Your task to perform on an android device: toggle notification dots Image 0: 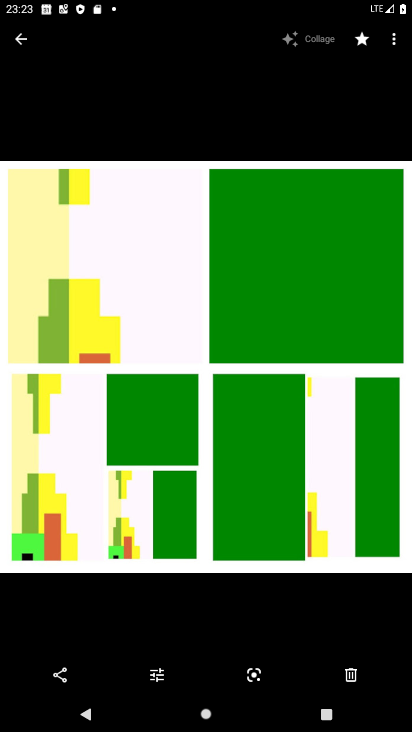
Step 0: drag from (251, 665) to (244, 583)
Your task to perform on an android device: toggle notification dots Image 1: 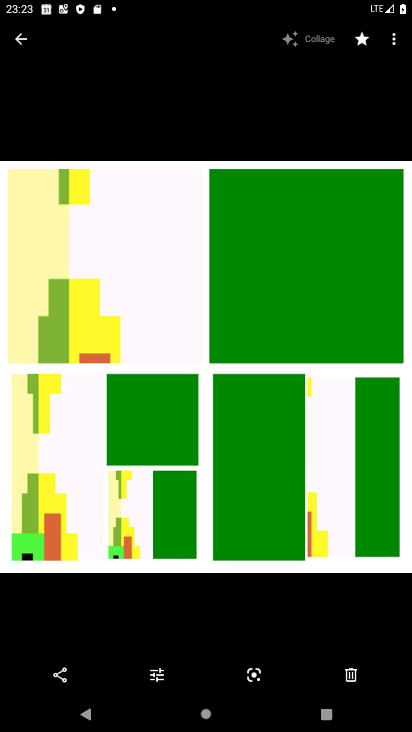
Step 1: press home button
Your task to perform on an android device: toggle notification dots Image 2: 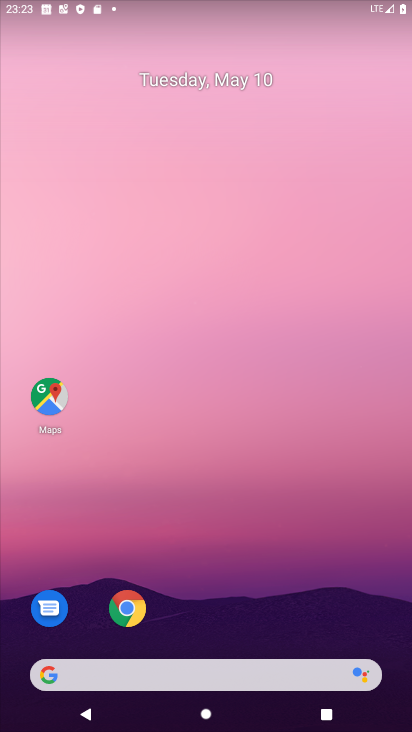
Step 2: drag from (256, 557) to (286, 294)
Your task to perform on an android device: toggle notification dots Image 3: 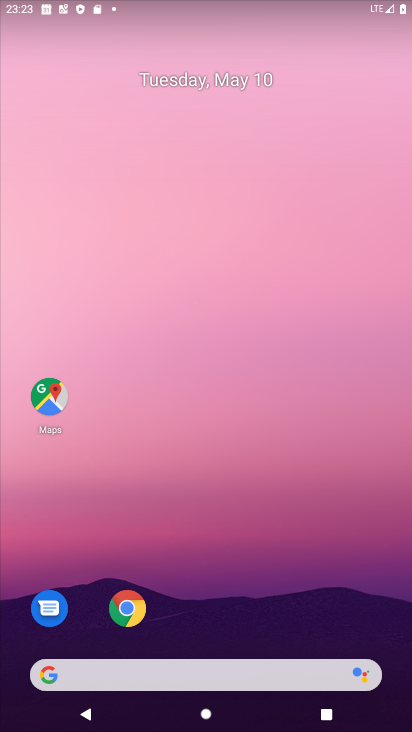
Step 3: drag from (191, 640) to (201, 239)
Your task to perform on an android device: toggle notification dots Image 4: 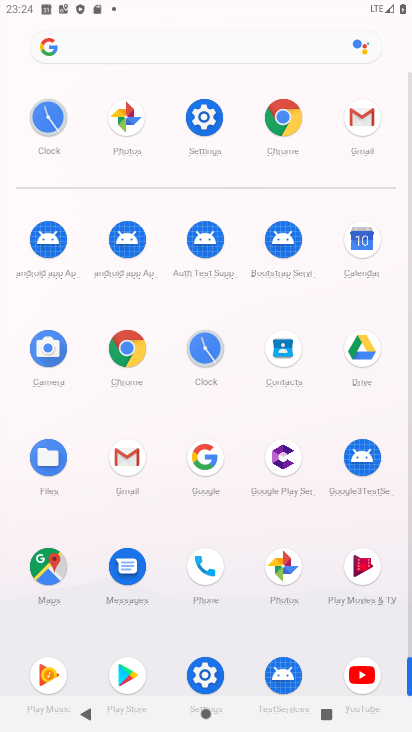
Step 4: click (203, 123)
Your task to perform on an android device: toggle notification dots Image 5: 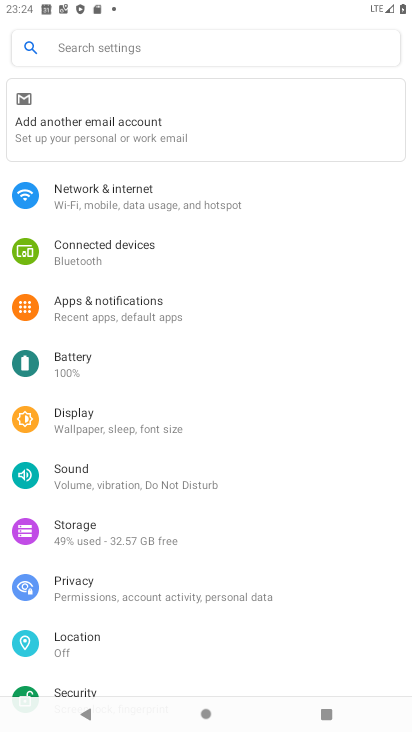
Step 5: click (257, 43)
Your task to perform on an android device: toggle notification dots Image 6: 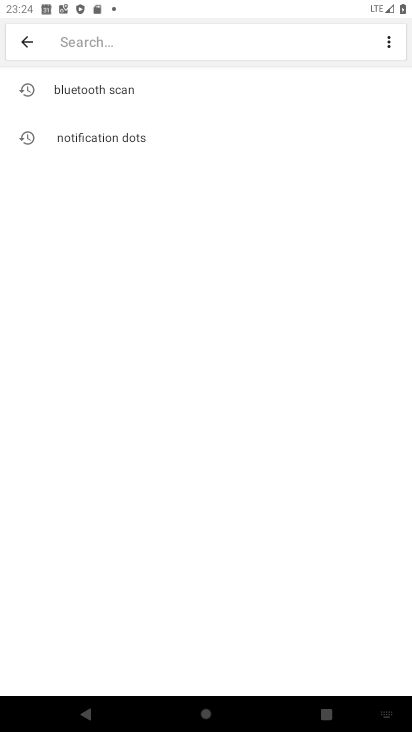
Step 6: click (141, 132)
Your task to perform on an android device: toggle notification dots Image 7: 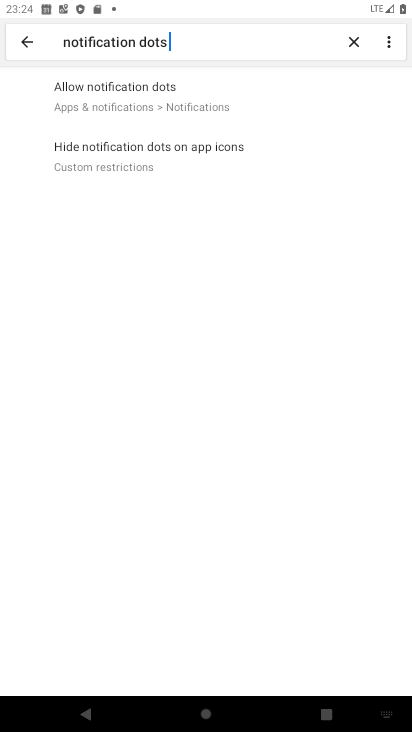
Step 7: click (165, 93)
Your task to perform on an android device: toggle notification dots Image 8: 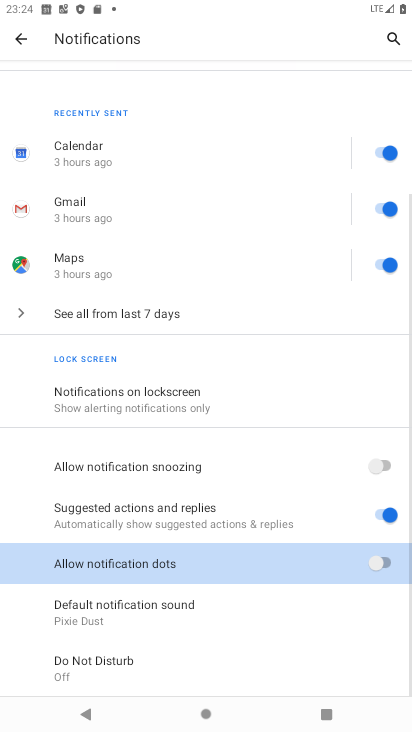
Step 8: click (383, 559)
Your task to perform on an android device: toggle notification dots Image 9: 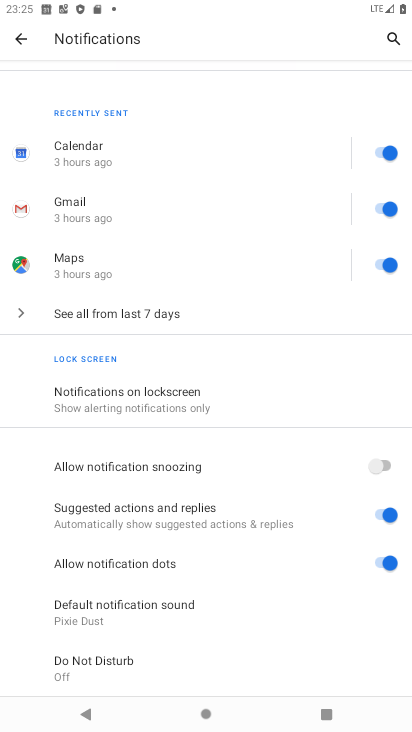
Step 9: task complete